Your task to perform on an android device: open chrome and create a bookmark for the current page Image 0: 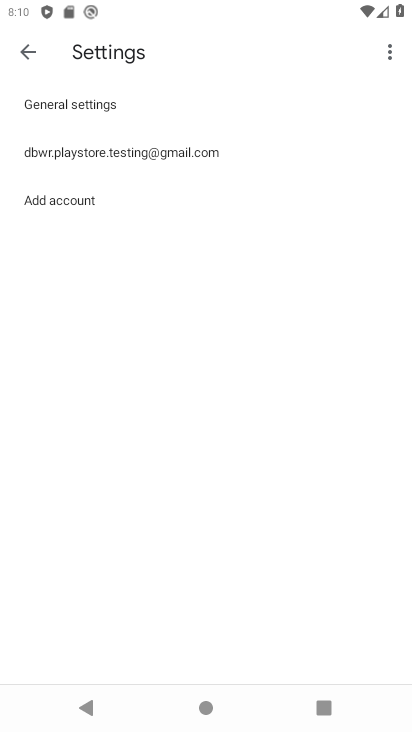
Step 0: press back button
Your task to perform on an android device: open chrome and create a bookmark for the current page Image 1: 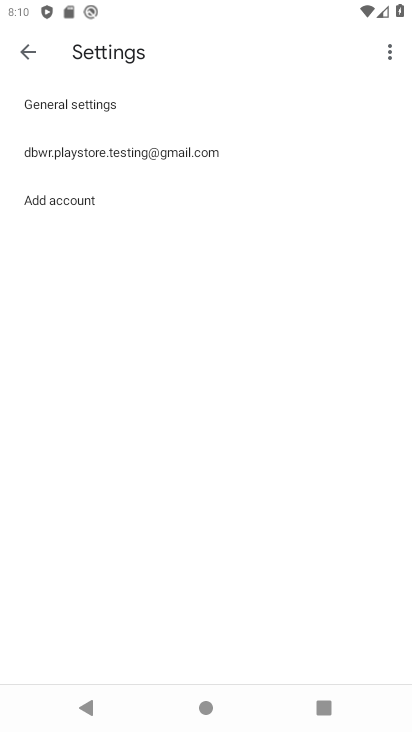
Step 1: press back button
Your task to perform on an android device: open chrome and create a bookmark for the current page Image 2: 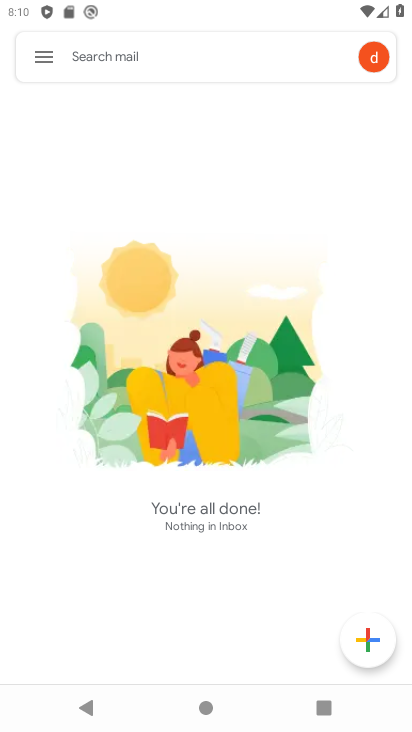
Step 2: press home button
Your task to perform on an android device: open chrome and create a bookmark for the current page Image 3: 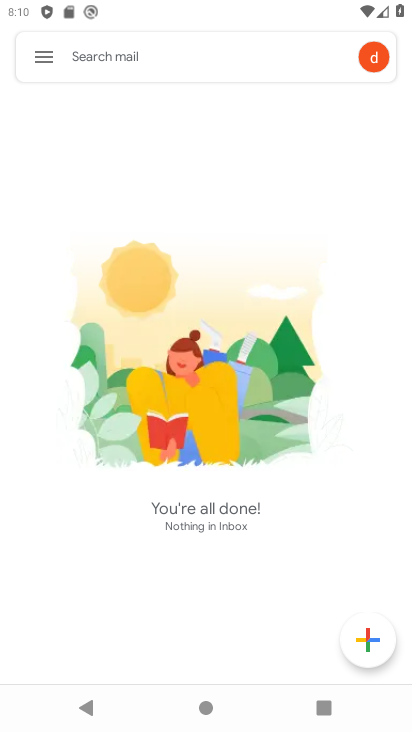
Step 3: press home button
Your task to perform on an android device: open chrome and create a bookmark for the current page Image 4: 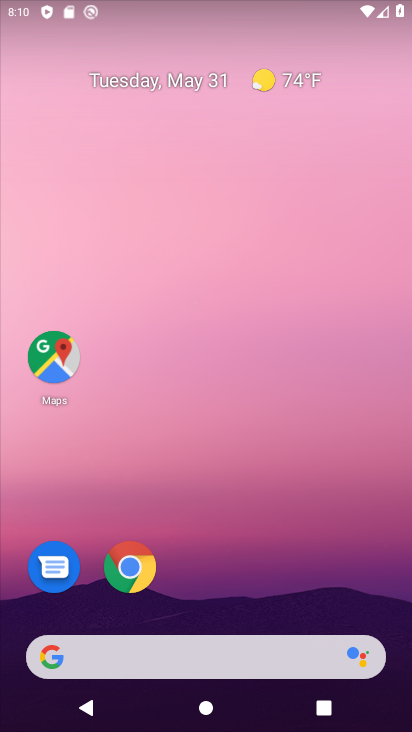
Step 4: drag from (236, 228) to (234, 88)
Your task to perform on an android device: open chrome and create a bookmark for the current page Image 5: 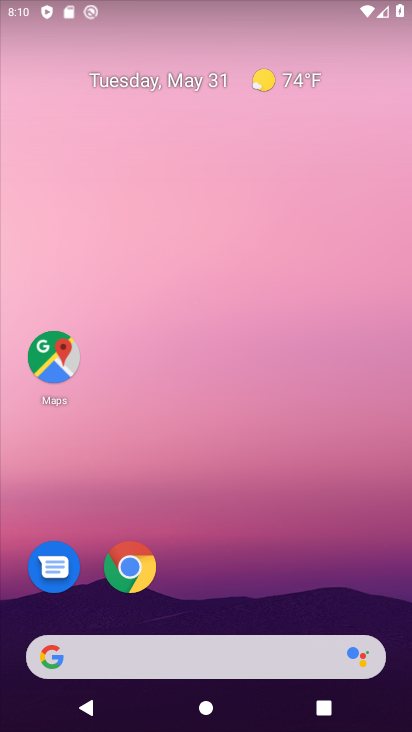
Step 5: drag from (282, 666) to (239, 196)
Your task to perform on an android device: open chrome and create a bookmark for the current page Image 6: 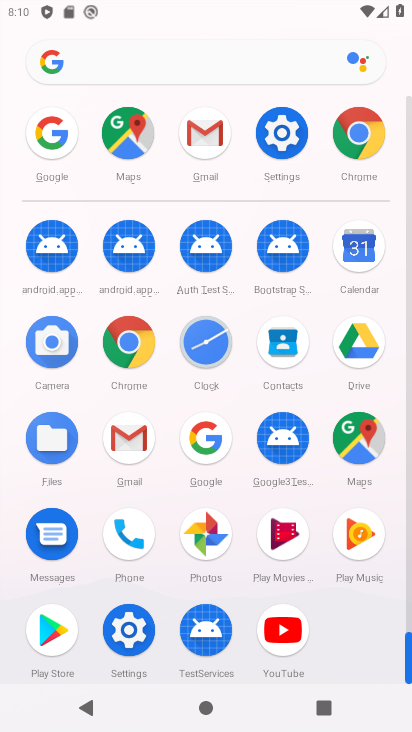
Step 6: click (353, 130)
Your task to perform on an android device: open chrome and create a bookmark for the current page Image 7: 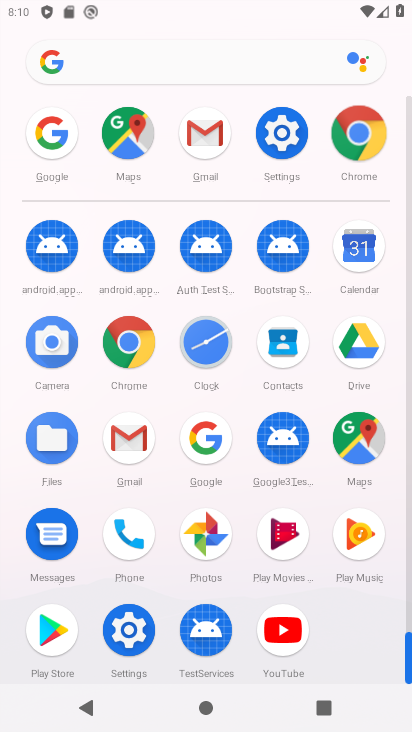
Step 7: click (353, 130)
Your task to perform on an android device: open chrome and create a bookmark for the current page Image 8: 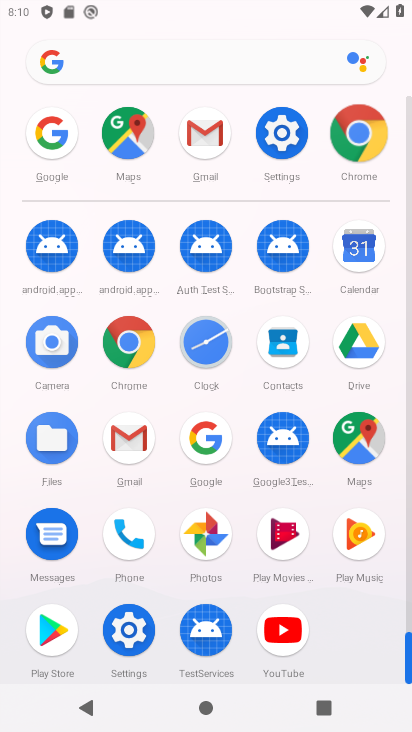
Step 8: click (358, 128)
Your task to perform on an android device: open chrome and create a bookmark for the current page Image 9: 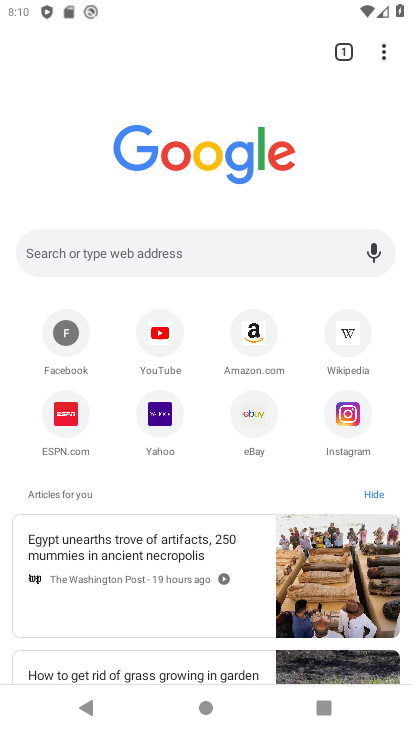
Step 9: click (52, 247)
Your task to perform on an android device: open chrome and create a bookmark for the current page Image 10: 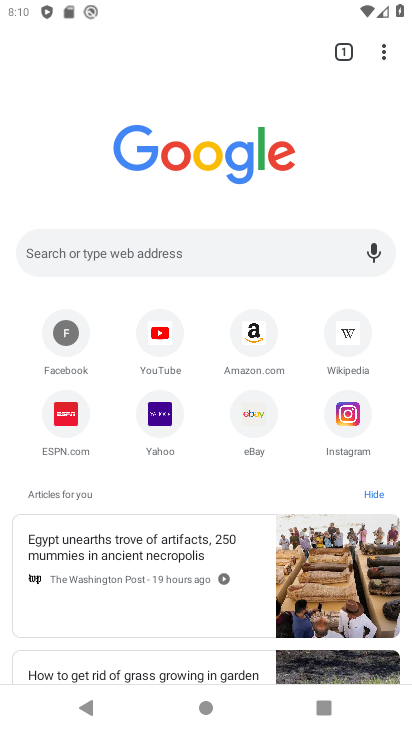
Step 10: click (50, 246)
Your task to perform on an android device: open chrome and create a bookmark for the current page Image 11: 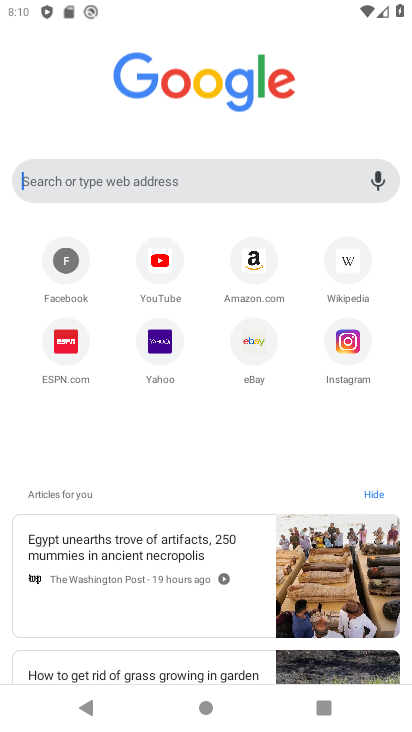
Step 11: click (50, 246)
Your task to perform on an android device: open chrome and create a bookmark for the current page Image 12: 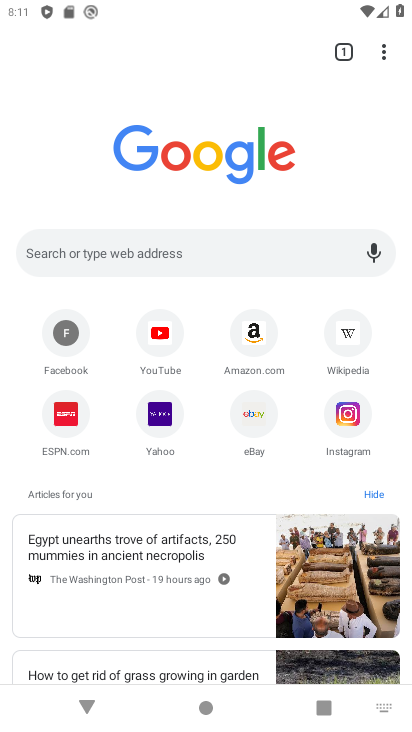
Step 12: click (32, 244)
Your task to perform on an android device: open chrome and create a bookmark for the current page Image 13: 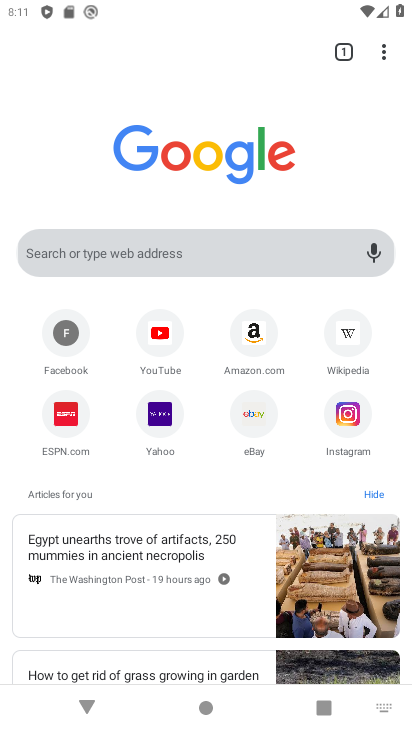
Step 13: click (30, 245)
Your task to perform on an android device: open chrome and create a bookmark for the current page Image 14: 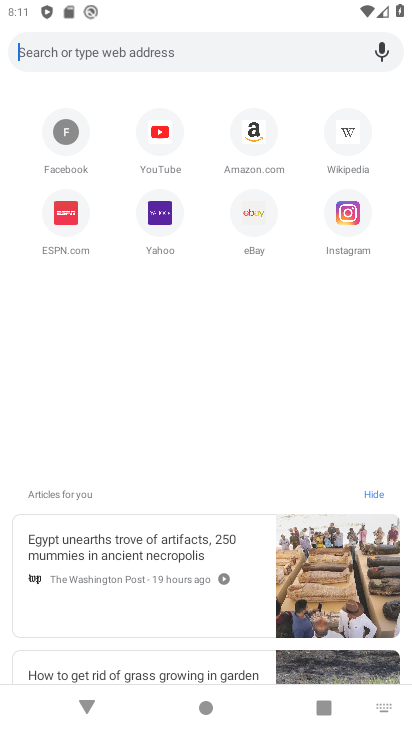
Step 14: click (30, 245)
Your task to perform on an android device: open chrome and create a bookmark for the current page Image 15: 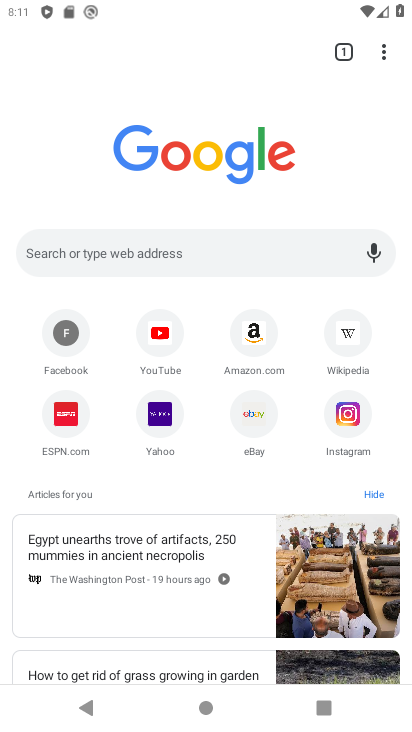
Step 15: click (38, 248)
Your task to perform on an android device: open chrome and create a bookmark for the current page Image 16: 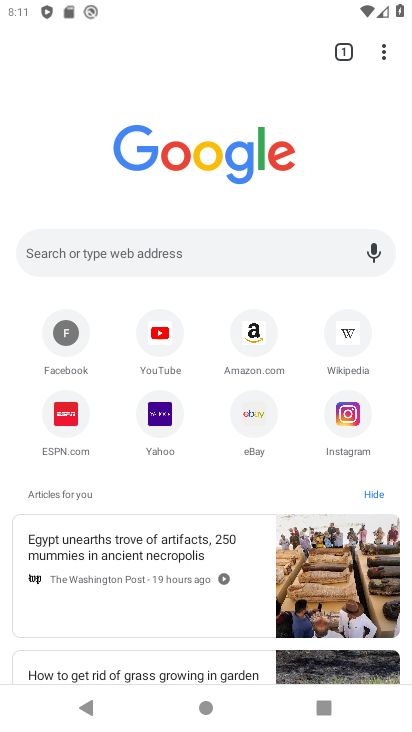
Step 16: click (38, 248)
Your task to perform on an android device: open chrome and create a bookmark for the current page Image 17: 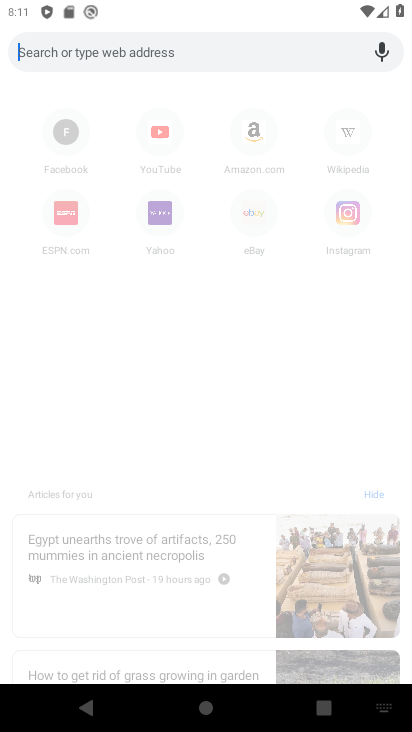
Step 17: type "SNAPDEAL.COM"
Your task to perform on an android device: open chrome and create a bookmark for the current page Image 18: 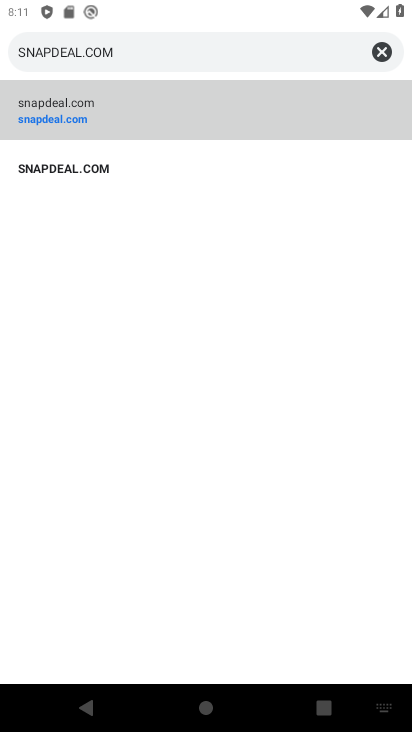
Step 18: click (44, 109)
Your task to perform on an android device: open chrome and create a bookmark for the current page Image 19: 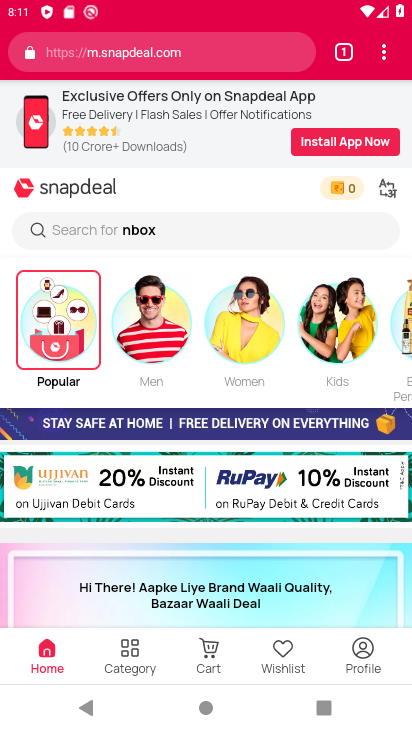
Step 19: drag from (382, 57) to (221, 51)
Your task to perform on an android device: open chrome and create a bookmark for the current page Image 20: 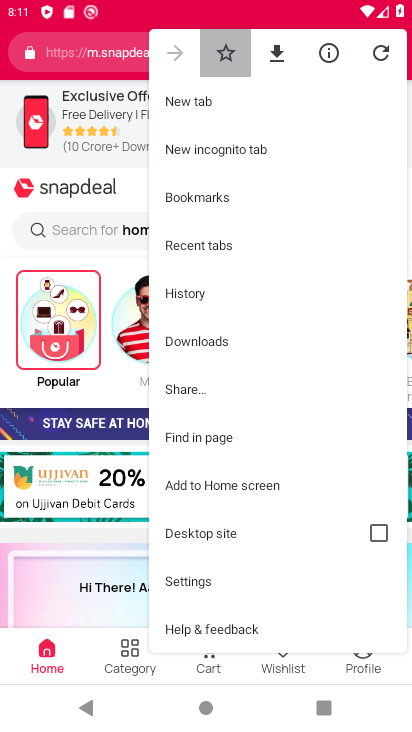
Step 20: click (222, 52)
Your task to perform on an android device: open chrome and create a bookmark for the current page Image 21: 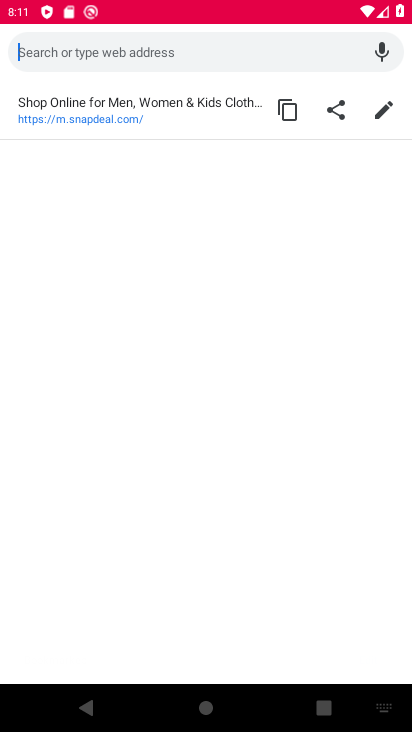
Step 21: task complete